Your task to perform on an android device: turn off airplane mode Image 0: 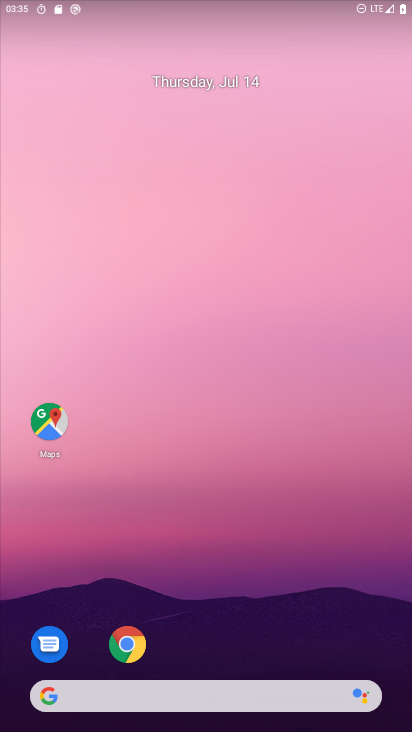
Step 0: drag from (251, 655) to (292, 47)
Your task to perform on an android device: turn off airplane mode Image 1: 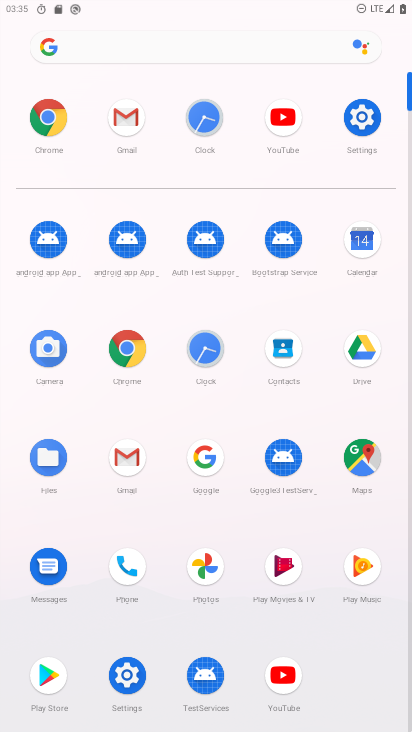
Step 1: click (374, 122)
Your task to perform on an android device: turn off airplane mode Image 2: 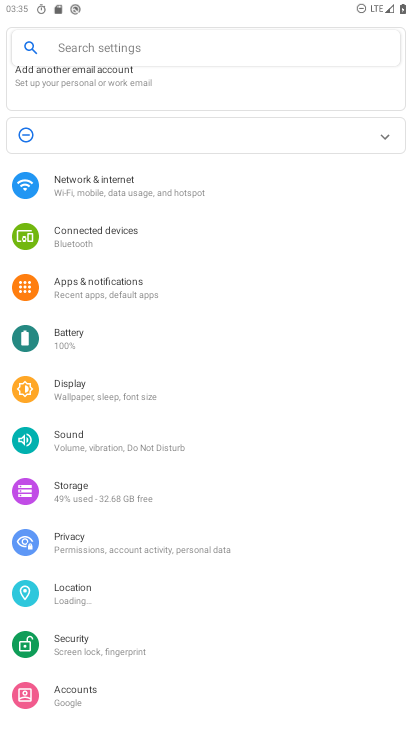
Step 2: click (124, 181)
Your task to perform on an android device: turn off airplane mode Image 3: 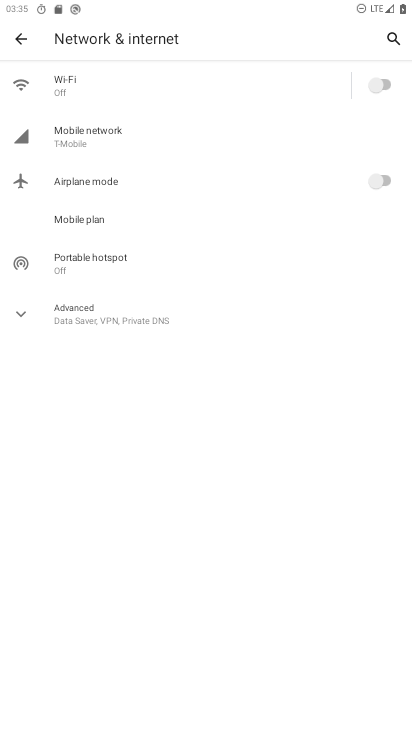
Step 3: task complete